Your task to perform on an android device: turn off location history Image 0: 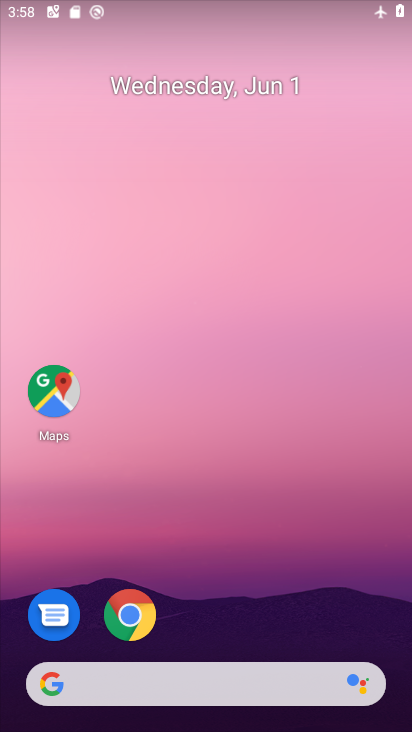
Step 0: drag from (335, 522) to (302, 154)
Your task to perform on an android device: turn off location history Image 1: 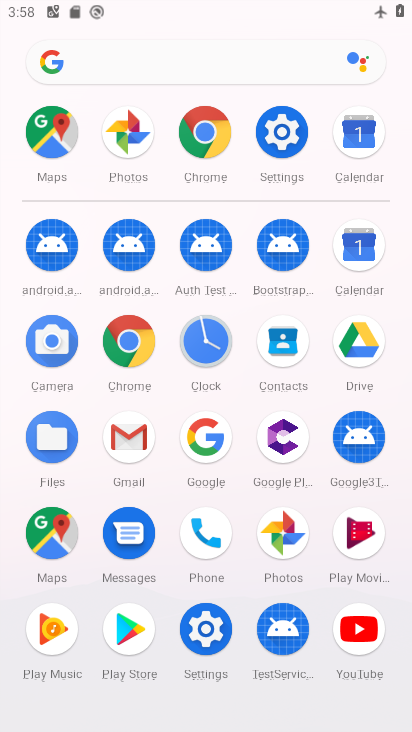
Step 1: click (283, 142)
Your task to perform on an android device: turn off location history Image 2: 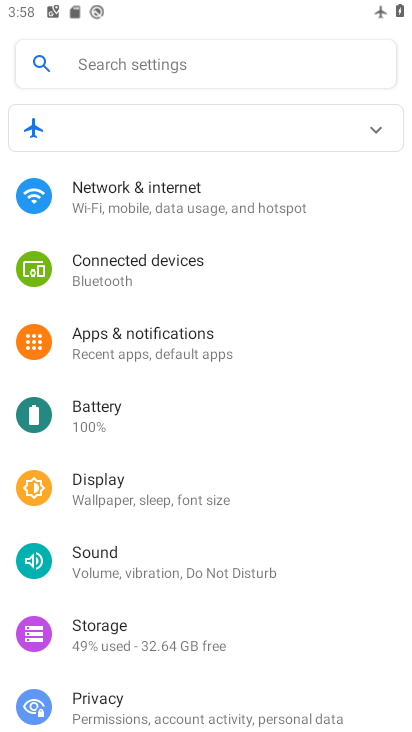
Step 2: drag from (224, 531) to (241, 245)
Your task to perform on an android device: turn off location history Image 3: 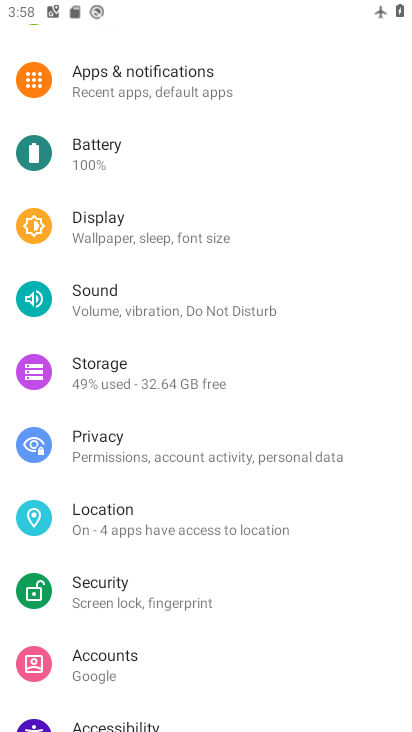
Step 3: click (202, 523)
Your task to perform on an android device: turn off location history Image 4: 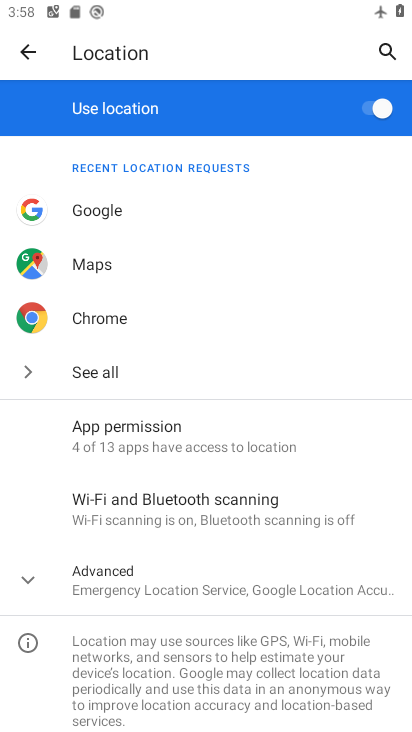
Step 4: click (202, 573)
Your task to perform on an android device: turn off location history Image 5: 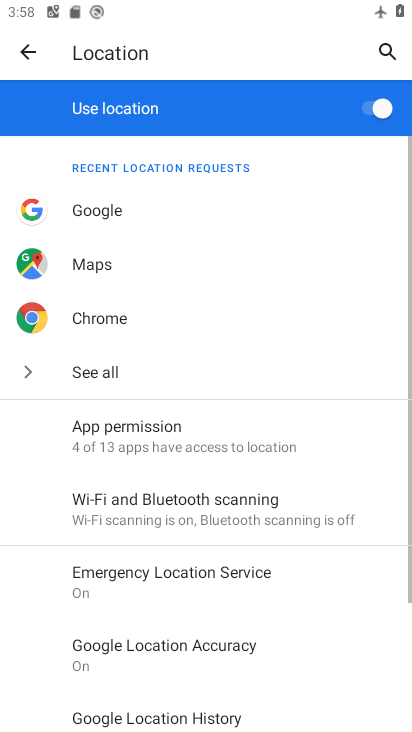
Step 5: drag from (229, 708) to (231, 366)
Your task to perform on an android device: turn off location history Image 6: 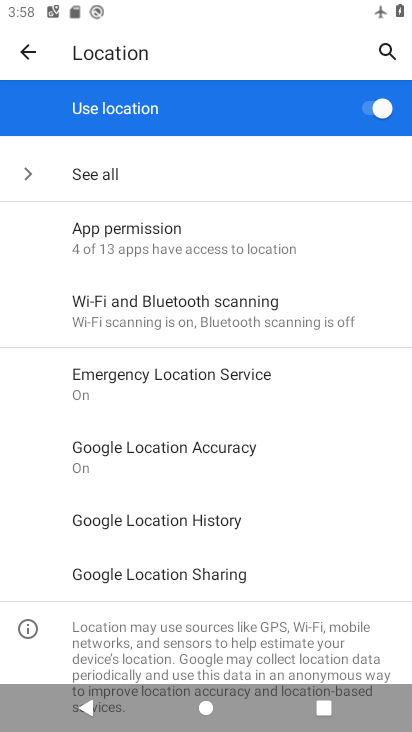
Step 6: click (234, 531)
Your task to perform on an android device: turn off location history Image 7: 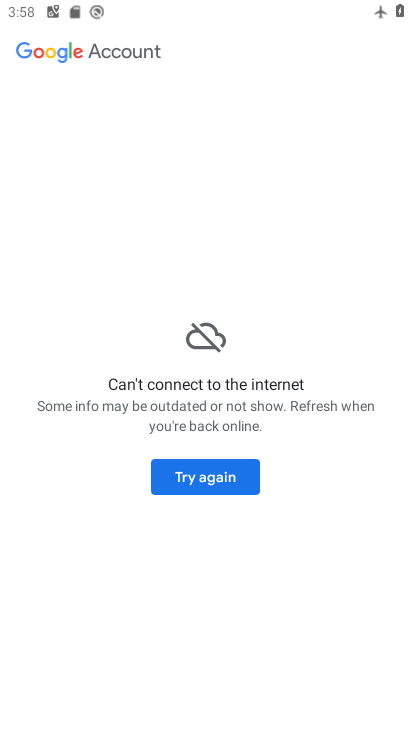
Step 7: task complete